Your task to perform on an android device: Do I have any events this weekend? Image 0: 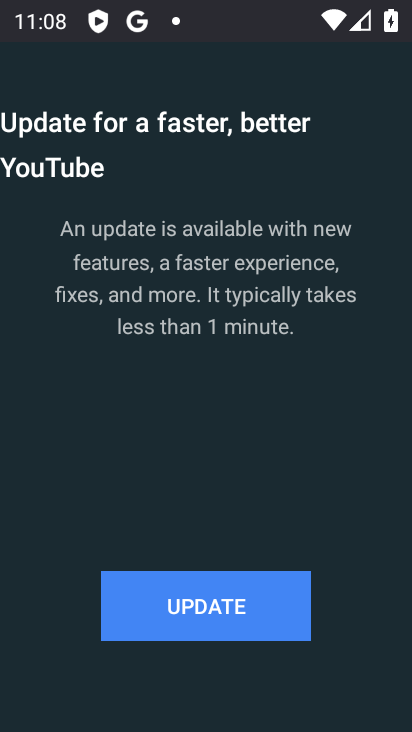
Step 0: drag from (182, 78) to (391, 483)
Your task to perform on an android device: Do I have any events this weekend? Image 1: 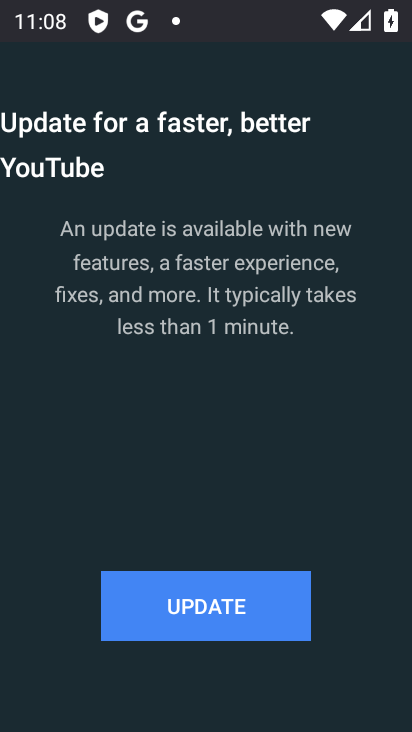
Step 1: press back button
Your task to perform on an android device: Do I have any events this weekend? Image 2: 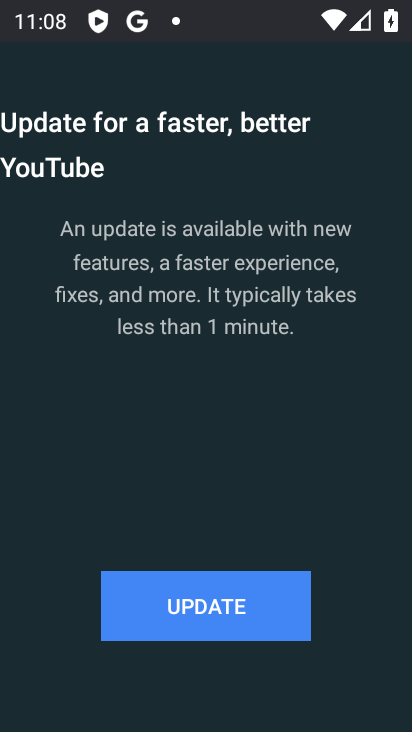
Step 2: press back button
Your task to perform on an android device: Do I have any events this weekend? Image 3: 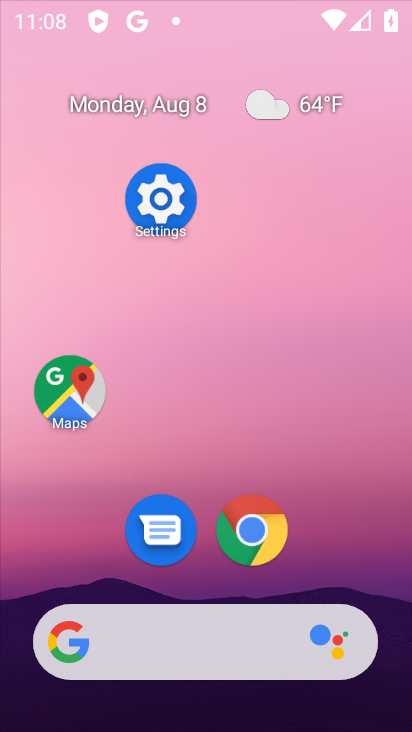
Step 3: press back button
Your task to perform on an android device: Do I have any events this weekend? Image 4: 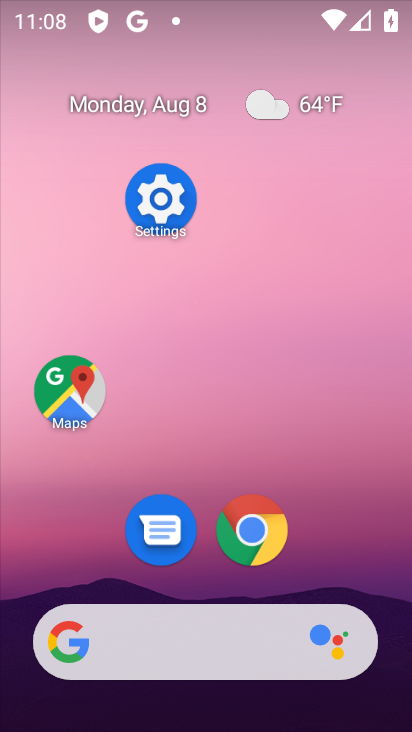
Step 4: drag from (192, 620) to (158, 218)
Your task to perform on an android device: Do I have any events this weekend? Image 5: 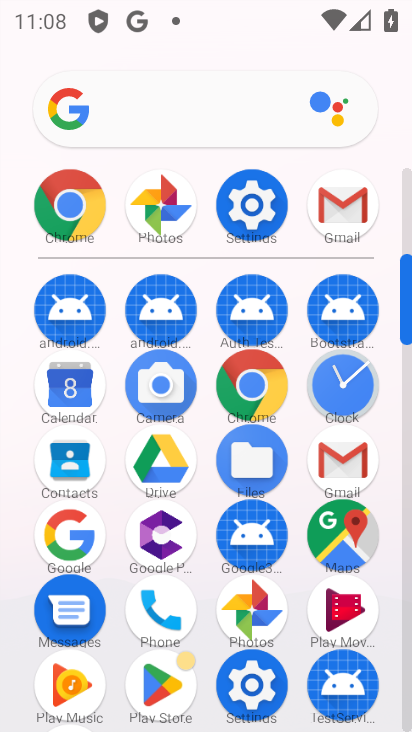
Step 5: drag from (246, 669) to (151, 202)
Your task to perform on an android device: Do I have any events this weekend? Image 6: 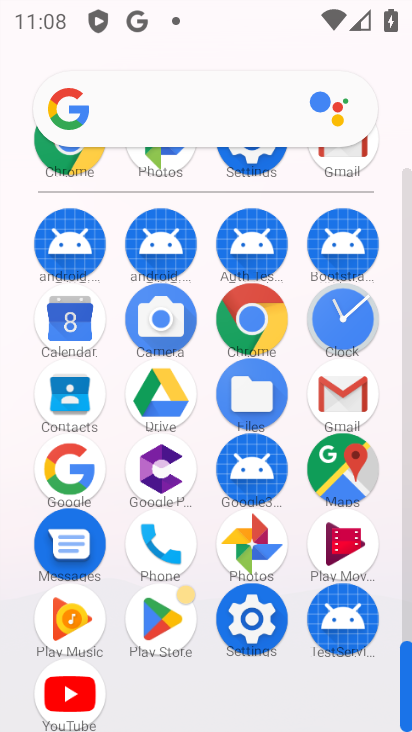
Step 6: click (257, 622)
Your task to perform on an android device: Do I have any events this weekend? Image 7: 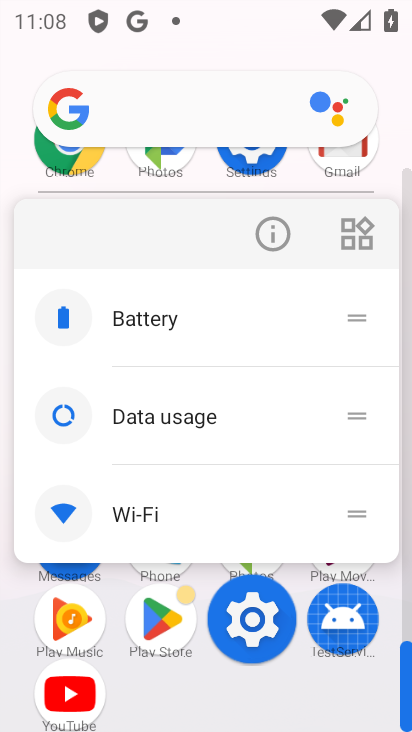
Step 7: click (256, 622)
Your task to perform on an android device: Do I have any events this weekend? Image 8: 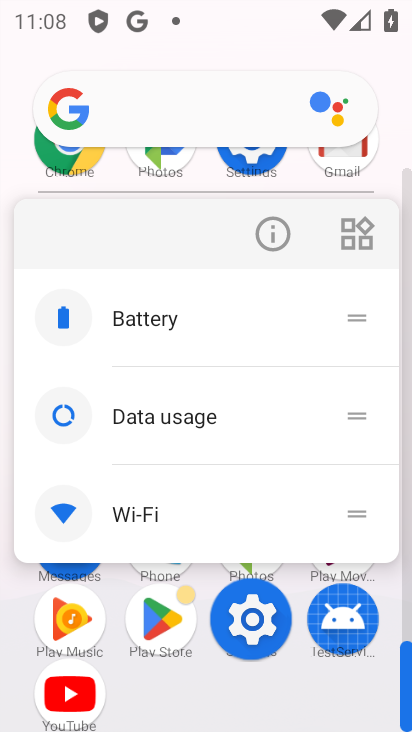
Step 8: click (257, 623)
Your task to perform on an android device: Do I have any events this weekend? Image 9: 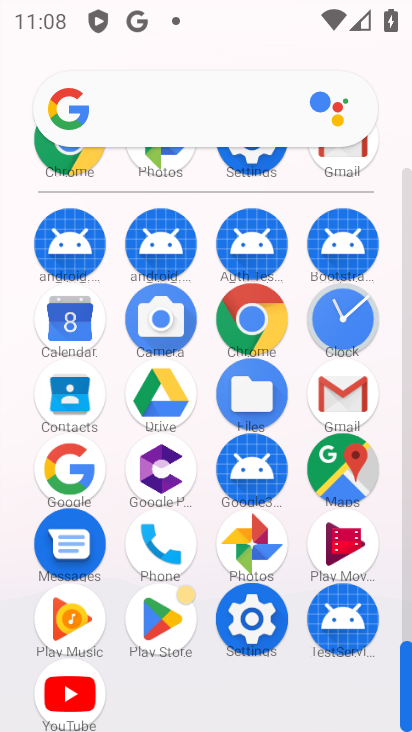
Step 9: click (254, 620)
Your task to perform on an android device: Do I have any events this weekend? Image 10: 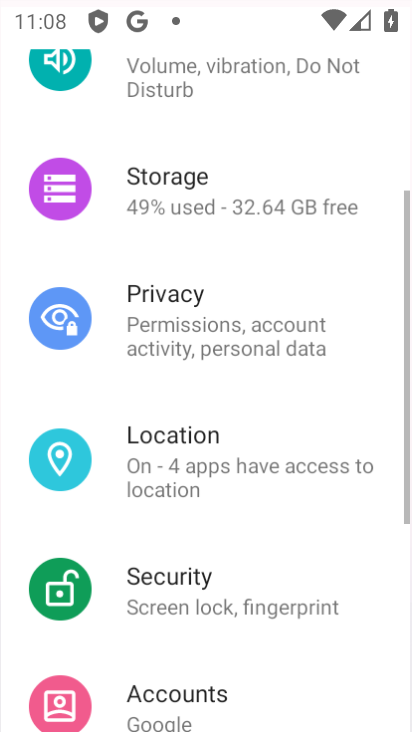
Step 10: click (248, 625)
Your task to perform on an android device: Do I have any events this weekend? Image 11: 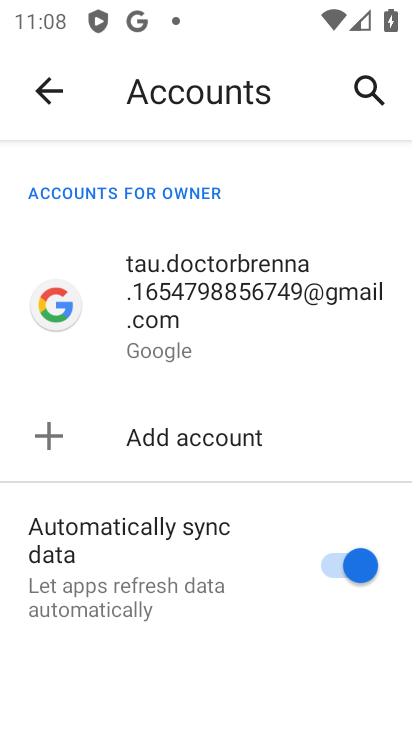
Step 11: click (55, 94)
Your task to perform on an android device: Do I have any events this weekend? Image 12: 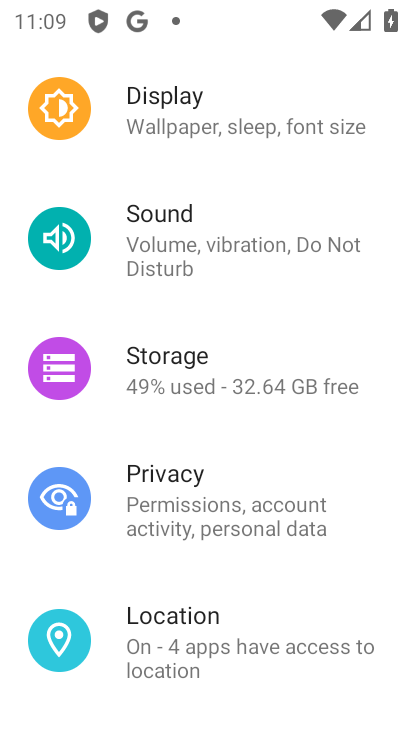
Step 12: press back button
Your task to perform on an android device: Do I have any events this weekend? Image 13: 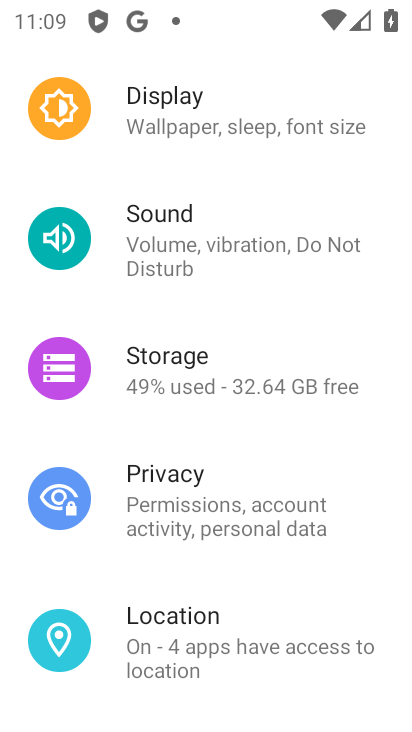
Step 13: press back button
Your task to perform on an android device: Do I have any events this weekend? Image 14: 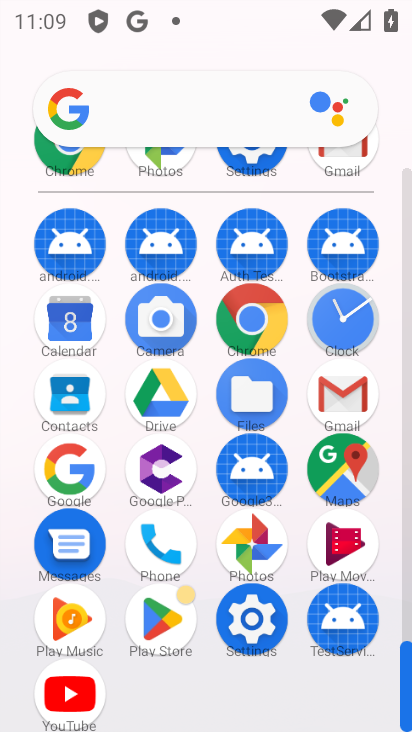
Step 14: click (59, 313)
Your task to perform on an android device: Do I have any events this weekend? Image 15: 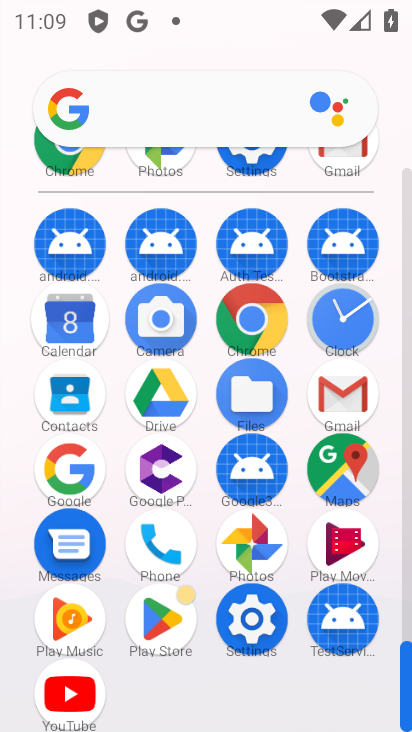
Step 15: click (62, 329)
Your task to perform on an android device: Do I have any events this weekend? Image 16: 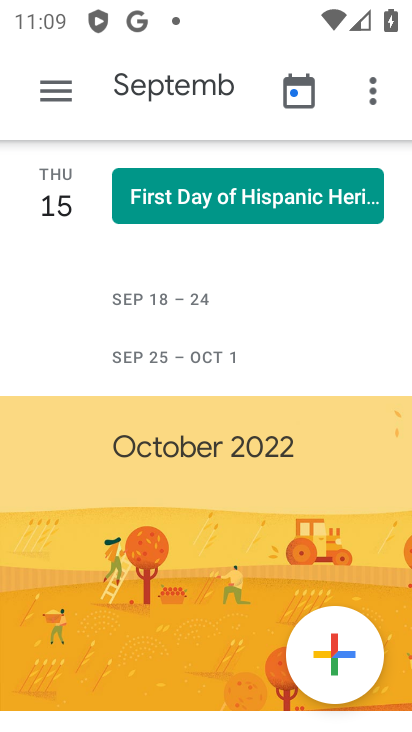
Step 16: click (175, 94)
Your task to perform on an android device: Do I have any events this weekend? Image 17: 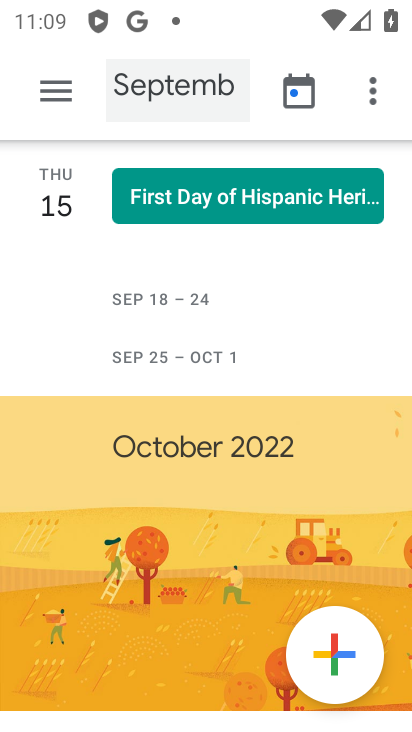
Step 17: click (179, 94)
Your task to perform on an android device: Do I have any events this weekend? Image 18: 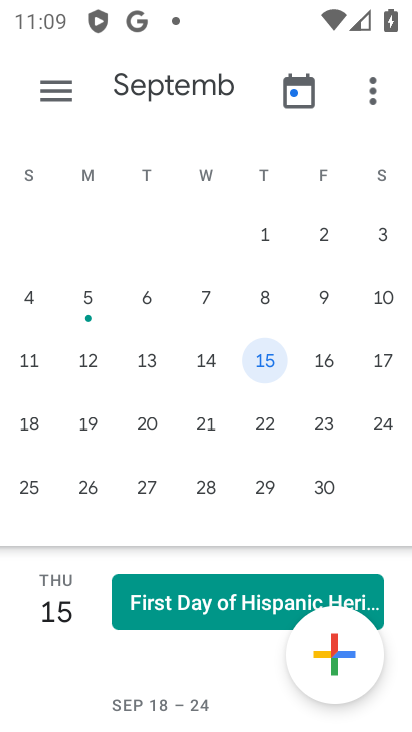
Step 18: drag from (175, 376) to (384, 458)
Your task to perform on an android device: Do I have any events this weekend? Image 19: 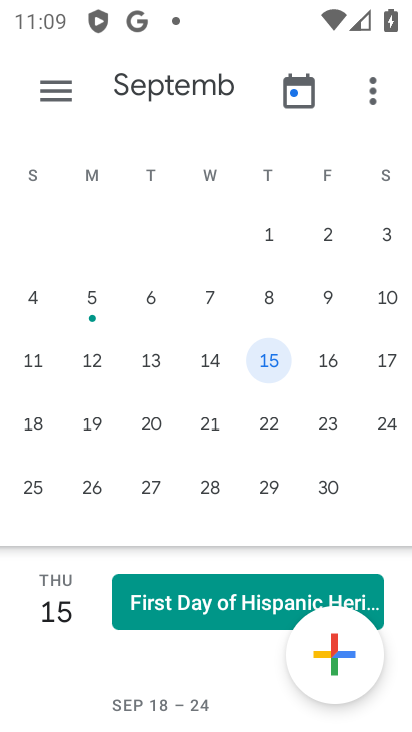
Step 19: drag from (326, 356) to (402, 373)
Your task to perform on an android device: Do I have any events this weekend? Image 20: 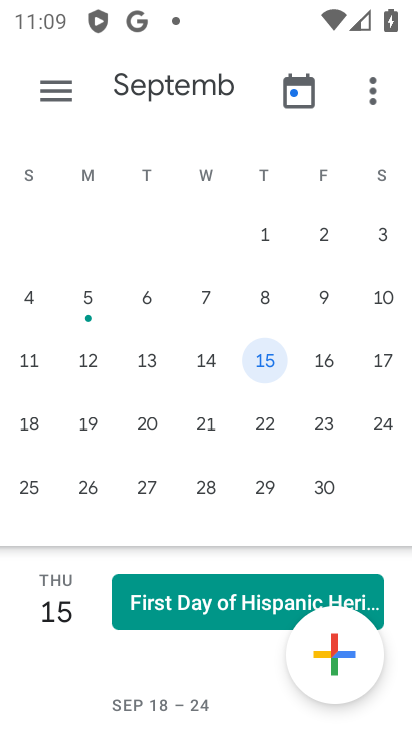
Step 20: drag from (206, 411) to (388, 213)
Your task to perform on an android device: Do I have any events this weekend? Image 21: 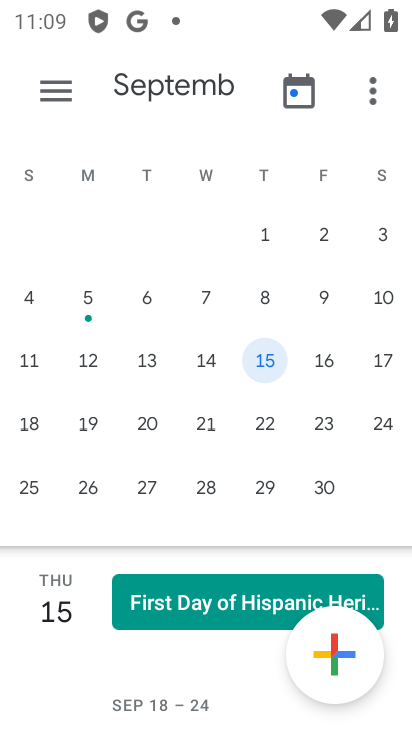
Step 21: drag from (52, 317) to (409, 338)
Your task to perform on an android device: Do I have any events this weekend? Image 22: 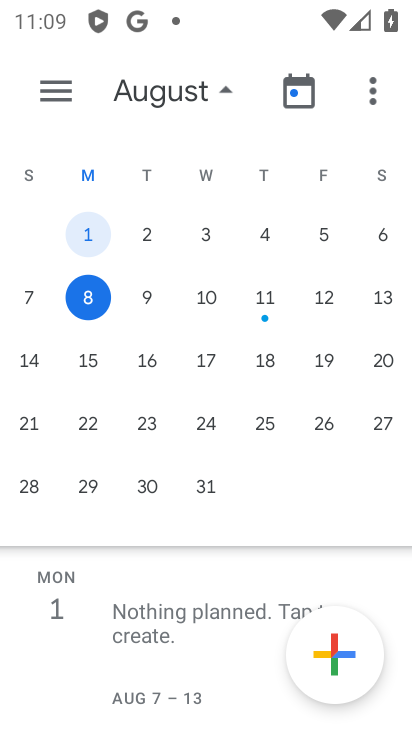
Step 22: click (220, 287)
Your task to perform on an android device: Do I have any events this weekend? Image 23: 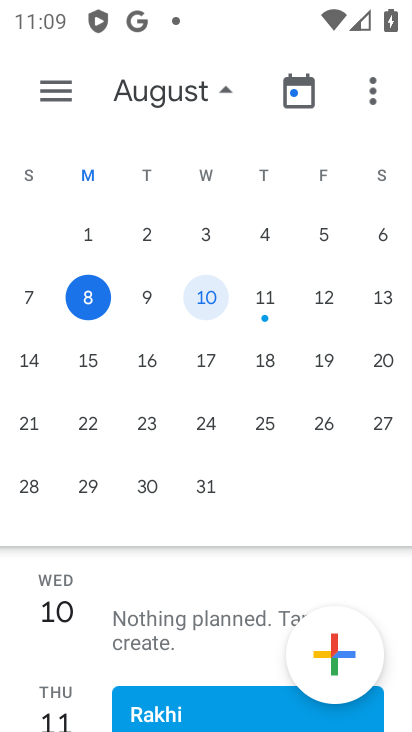
Step 23: click (216, 301)
Your task to perform on an android device: Do I have any events this weekend? Image 24: 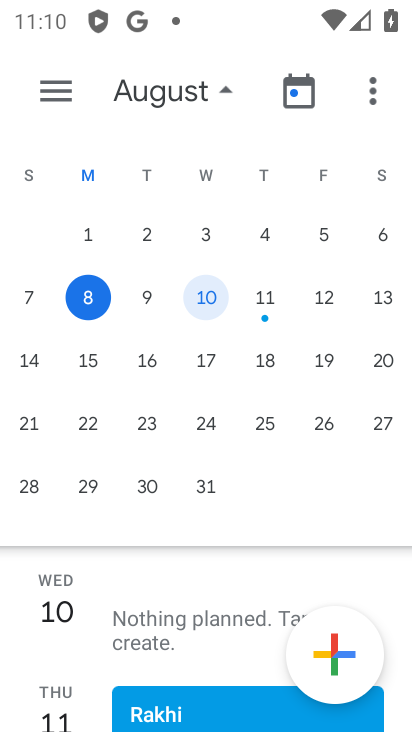
Step 24: click (216, 300)
Your task to perform on an android device: Do I have any events this weekend? Image 25: 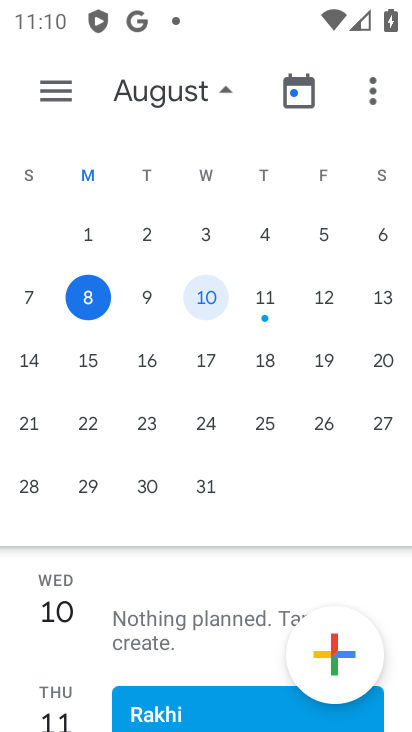
Step 25: task complete